Your task to perform on an android device: empty trash in the gmail app Image 0: 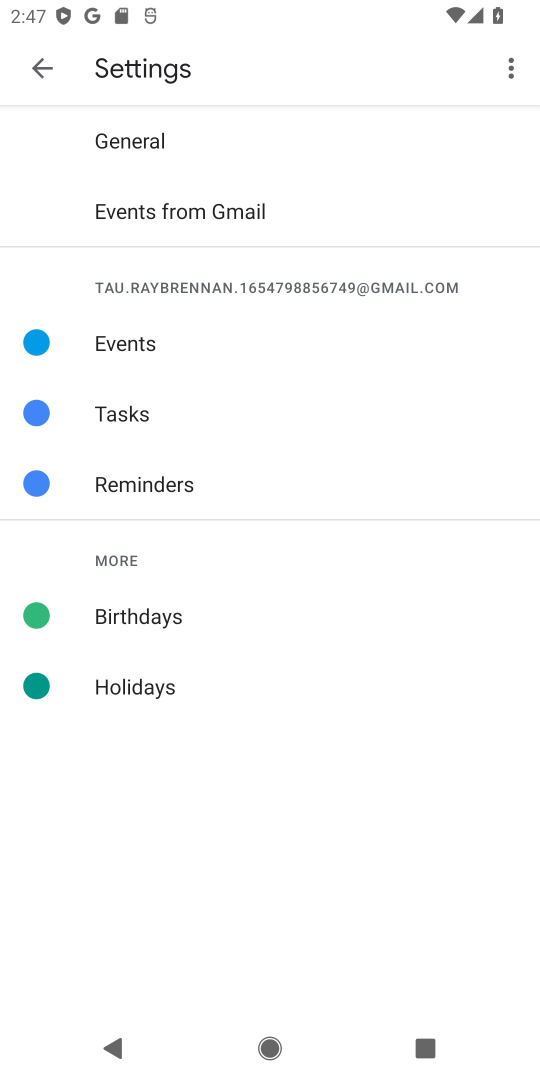
Step 0: press home button
Your task to perform on an android device: empty trash in the gmail app Image 1: 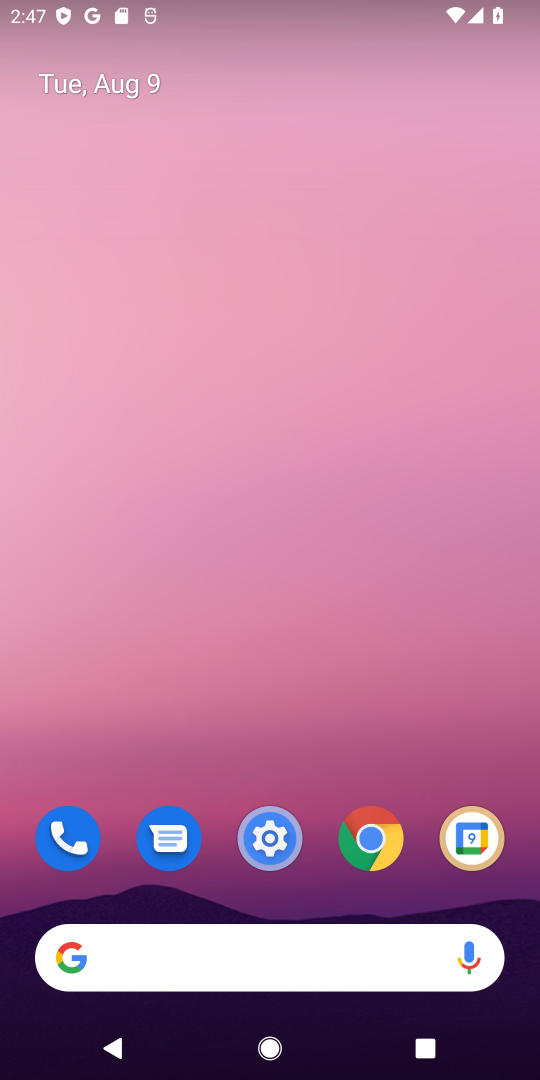
Step 1: drag from (342, 892) to (415, 263)
Your task to perform on an android device: empty trash in the gmail app Image 2: 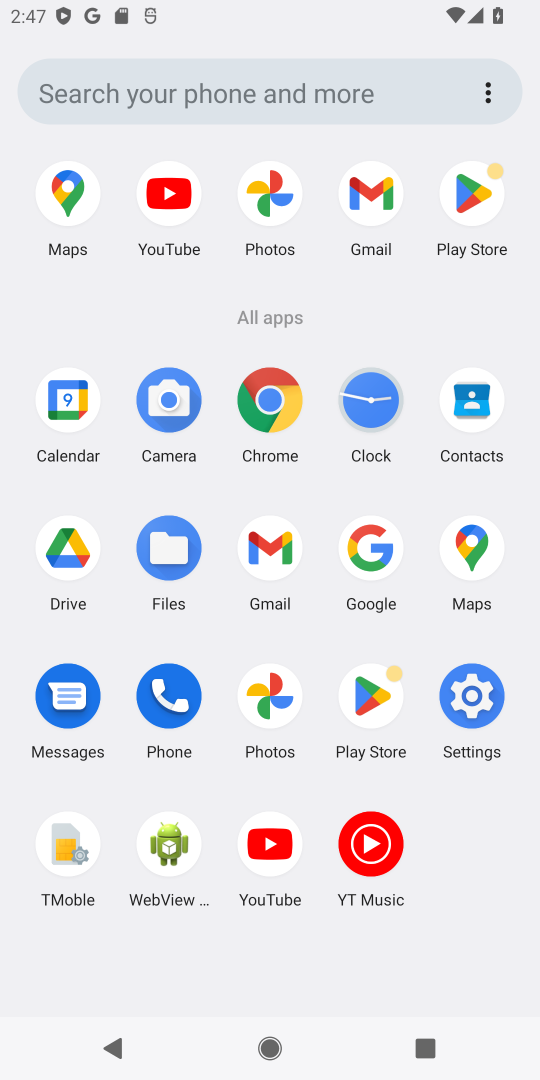
Step 2: click (293, 533)
Your task to perform on an android device: empty trash in the gmail app Image 3: 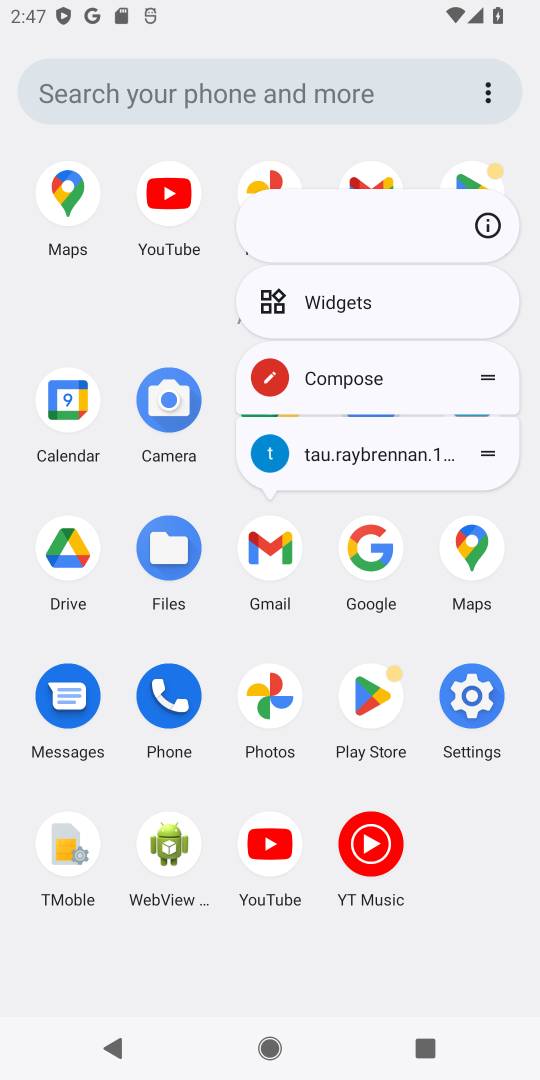
Step 3: click (269, 548)
Your task to perform on an android device: empty trash in the gmail app Image 4: 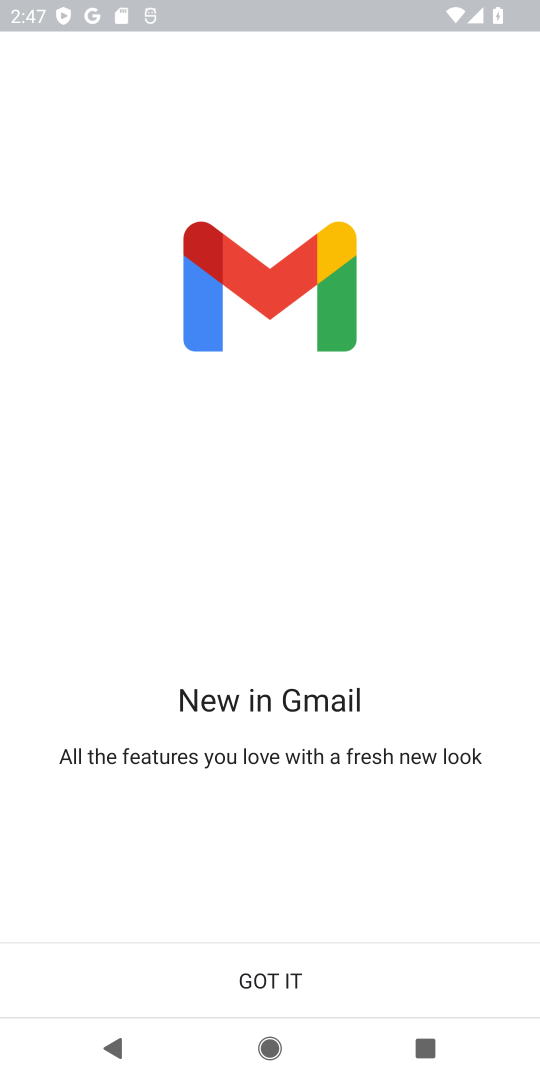
Step 4: click (297, 994)
Your task to perform on an android device: empty trash in the gmail app Image 5: 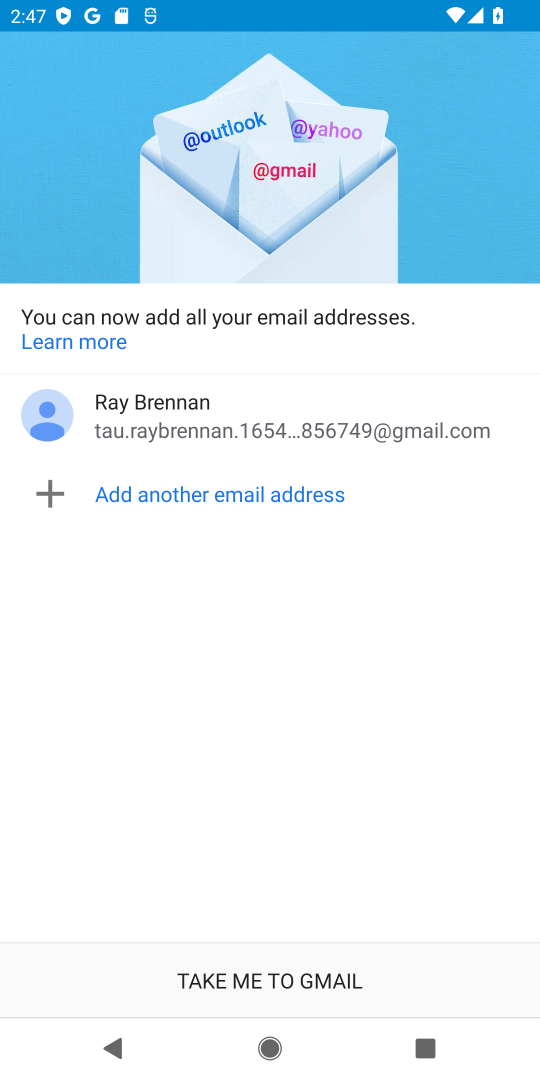
Step 5: click (297, 994)
Your task to perform on an android device: empty trash in the gmail app Image 6: 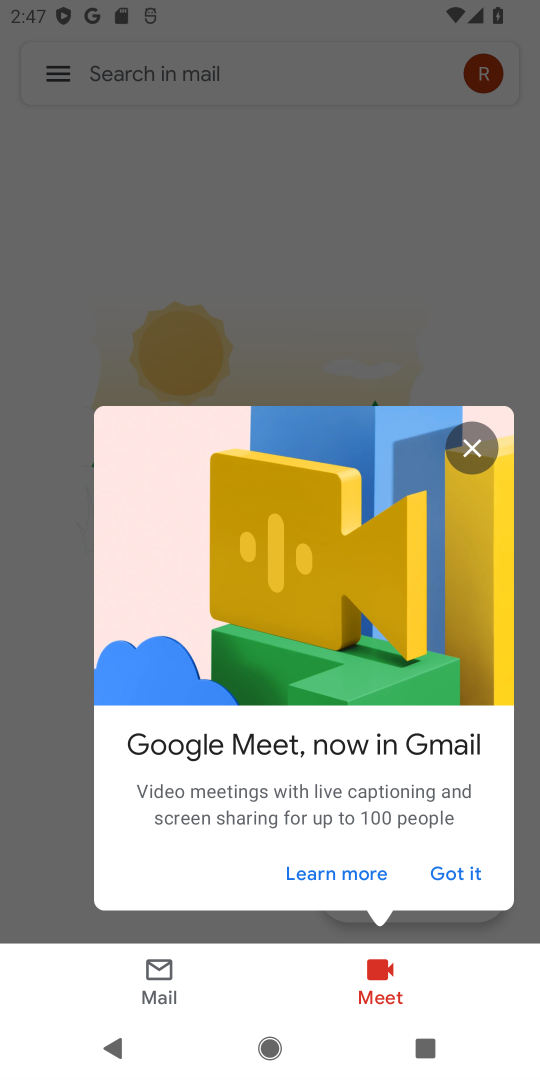
Step 6: click (460, 857)
Your task to perform on an android device: empty trash in the gmail app Image 7: 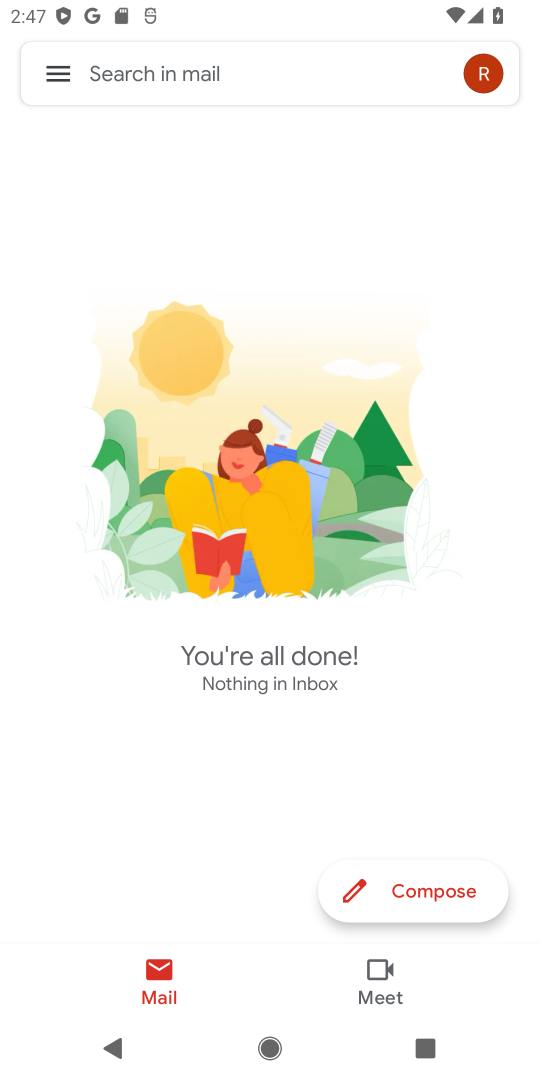
Step 7: click (49, 77)
Your task to perform on an android device: empty trash in the gmail app Image 8: 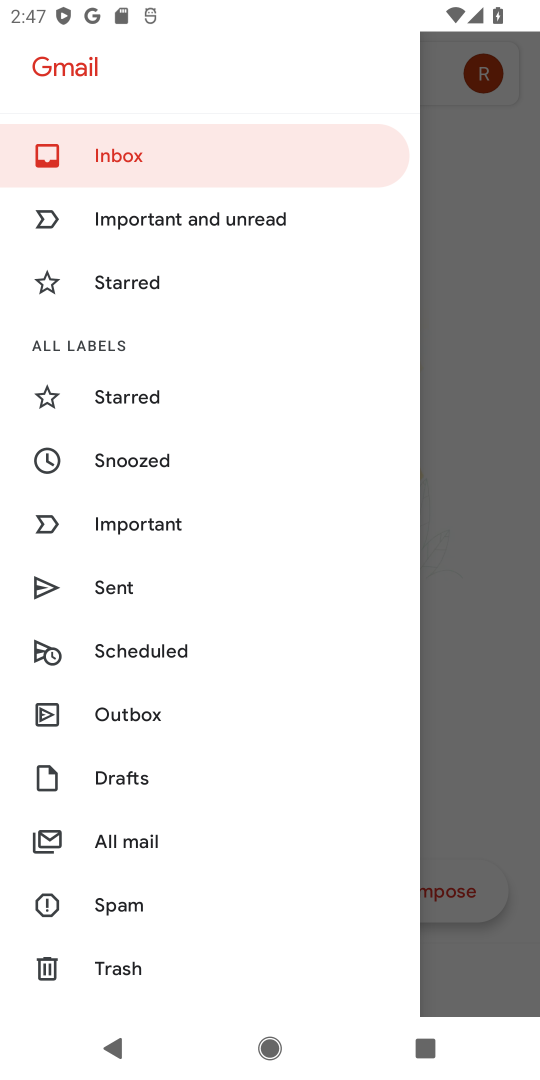
Step 8: click (119, 976)
Your task to perform on an android device: empty trash in the gmail app Image 9: 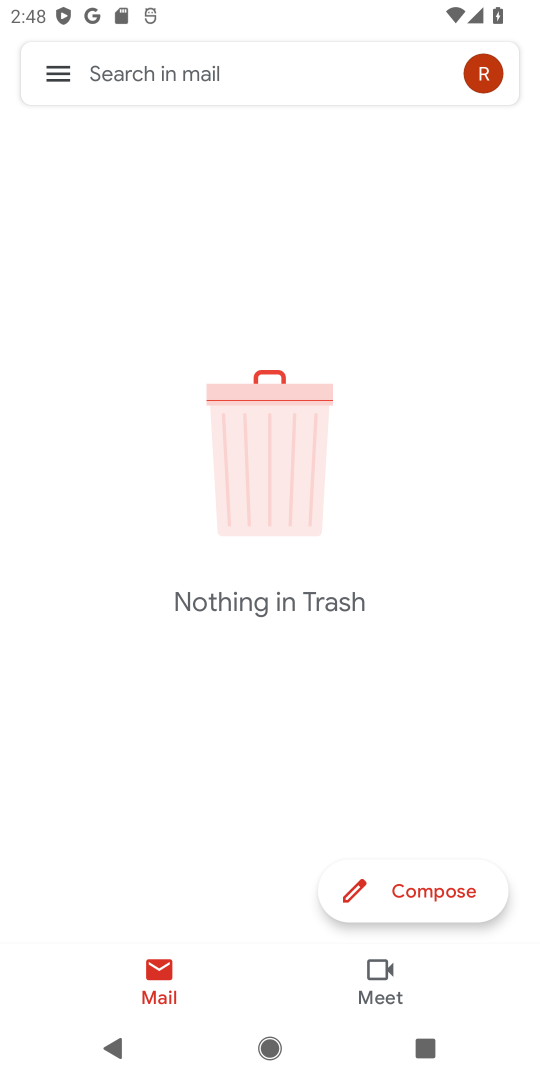
Step 9: task complete